Your task to perform on an android device: open app "Facebook" (install if not already installed) and enter user name: "resultants@gmail.com" and password: "earned" Image 0: 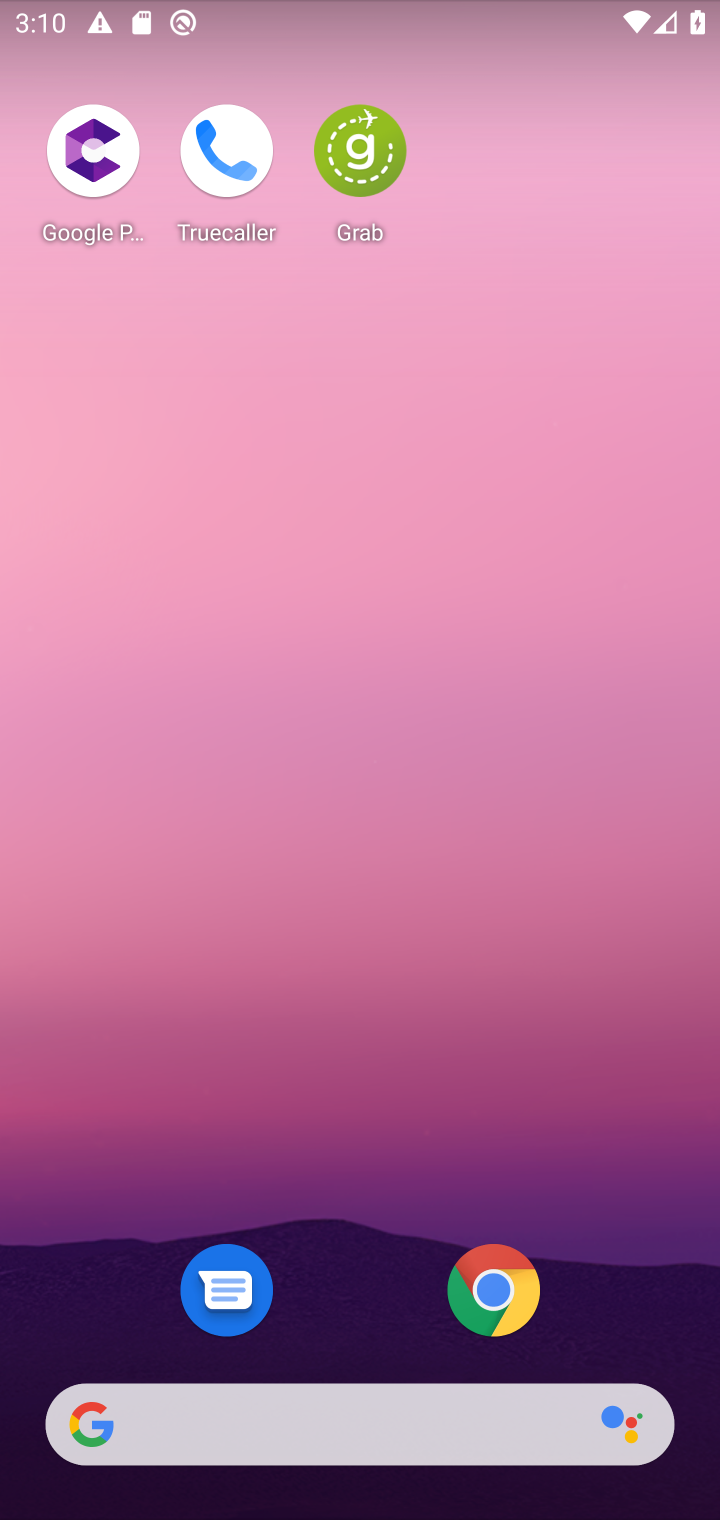
Step 0: drag from (286, 1217) to (197, 135)
Your task to perform on an android device: open app "Facebook" (install if not already installed) and enter user name: "resultants@gmail.com" and password: "earned" Image 1: 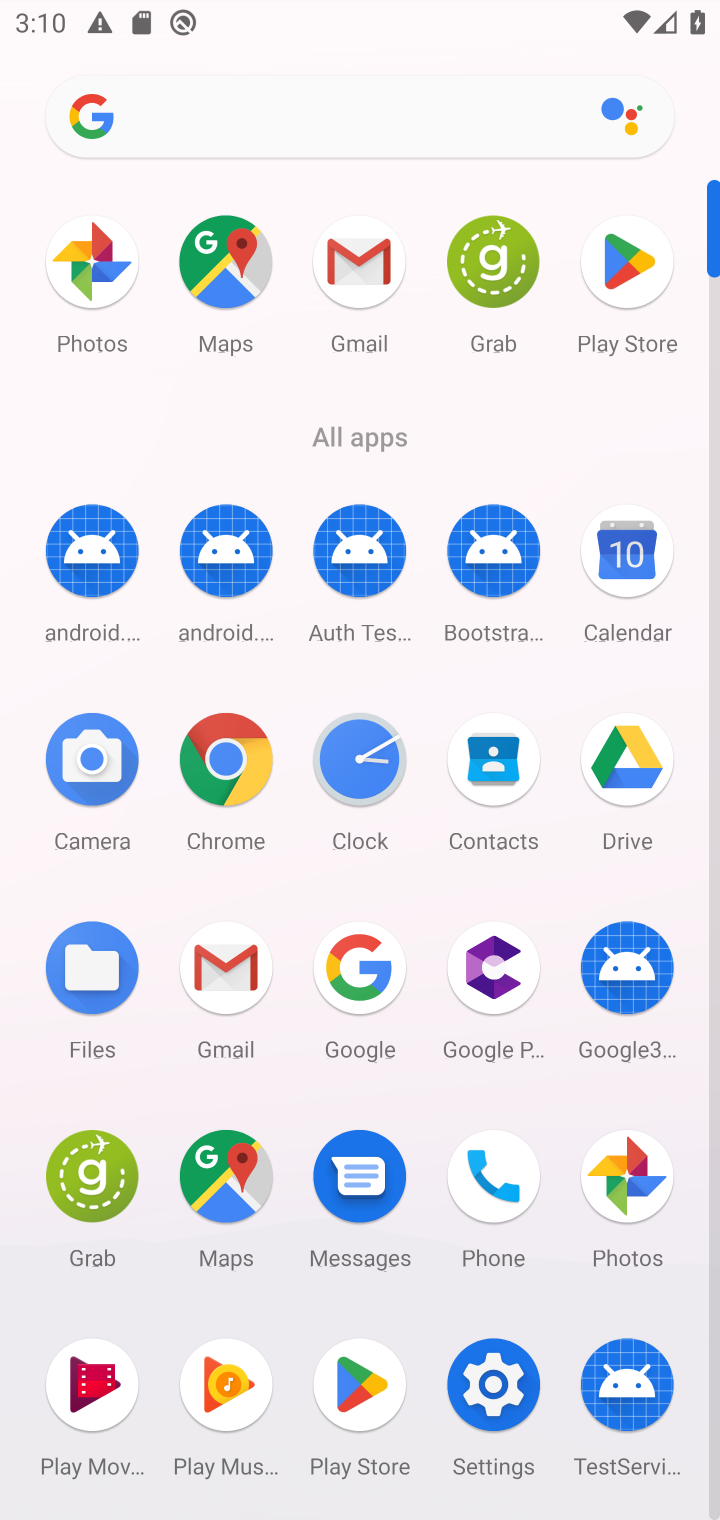
Step 1: drag from (265, 1340) to (194, 227)
Your task to perform on an android device: open app "Facebook" (install if not already installed) and enter user name: "resultants@gmail.com" and password: "earned" Image 2: 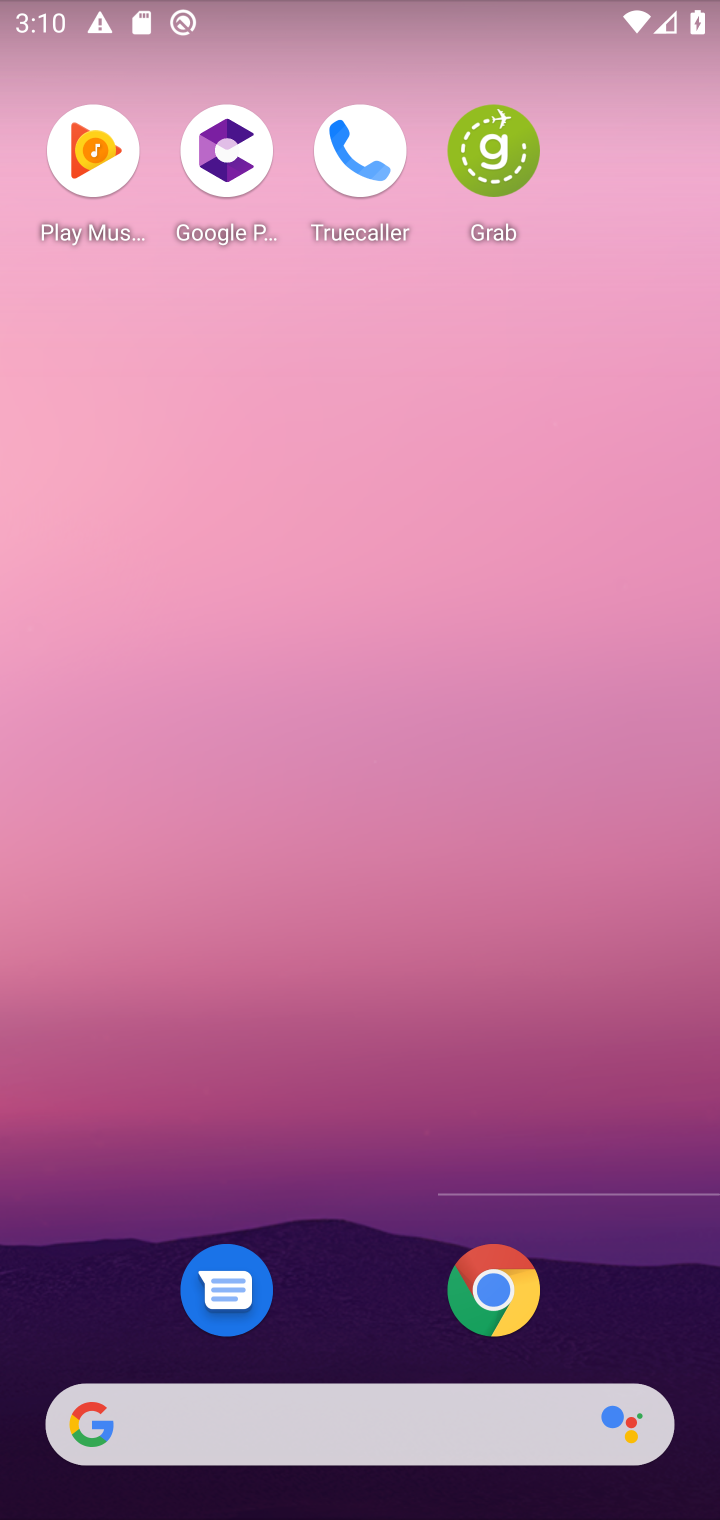
Step 2: drag from (301, 1341) to (274, 0)
Your task to perform on an android device: open app "Facebook" (install if not already installed) and enter user name: "resultants@gmail.com" and password: "earned" Image 3: 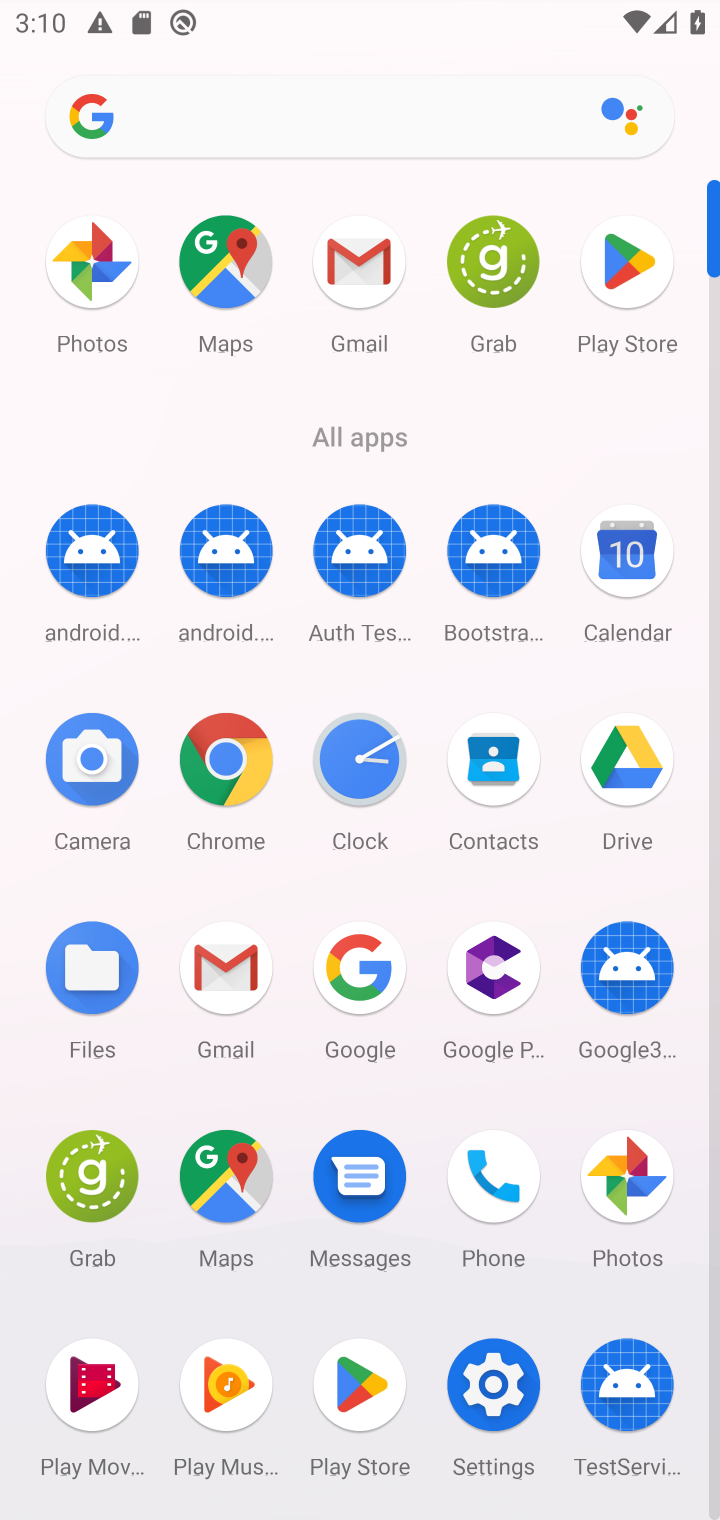
Step 3: drag from (284, 1313) to (292, 95)
Your task to perform on an android device: open app "Facebook" (install if not already installed) and enter user name: "resultants@gmail.com" and password: "earned" Image 4: 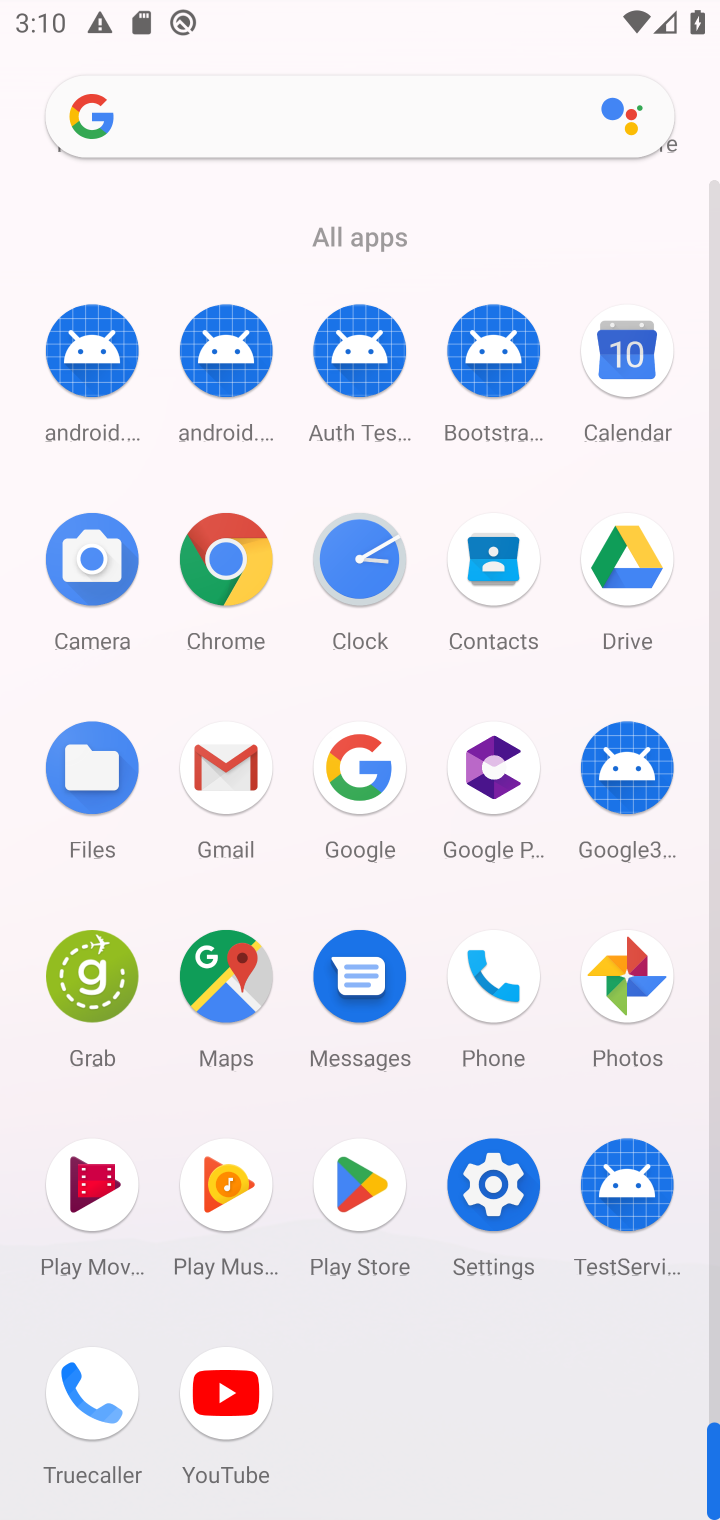
Step 4: click (374, 1180)
Your task to perform on an android device: open app "Facebook" (install if not already installed) and enter user name: "resultants@gmail.com" and password: "earned" Image 5: 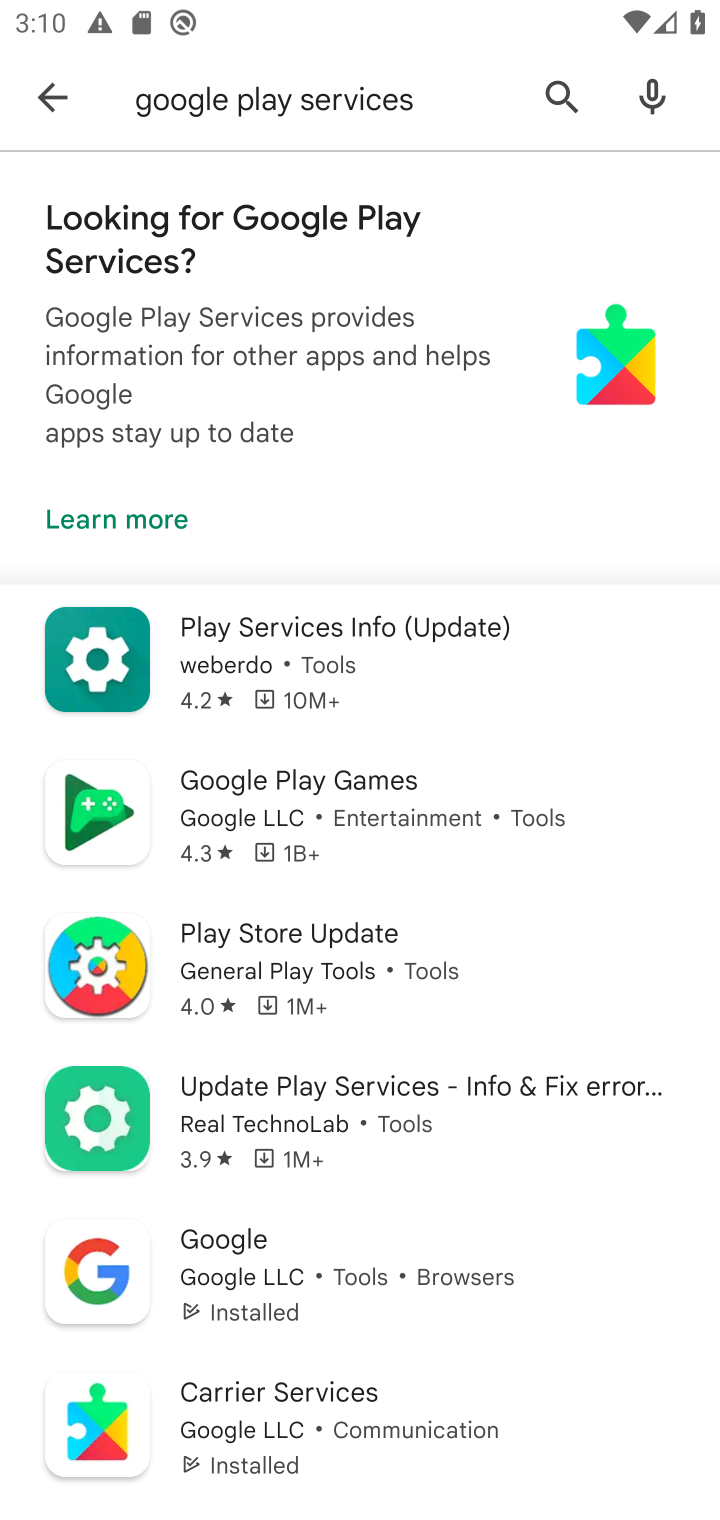
Step 5: click (575, 83)
Your task to perform on an android device: open app "Facebook" (install if not already installed) and enter user name: "resultants@gmail.com" and password: "earned" Image 6: 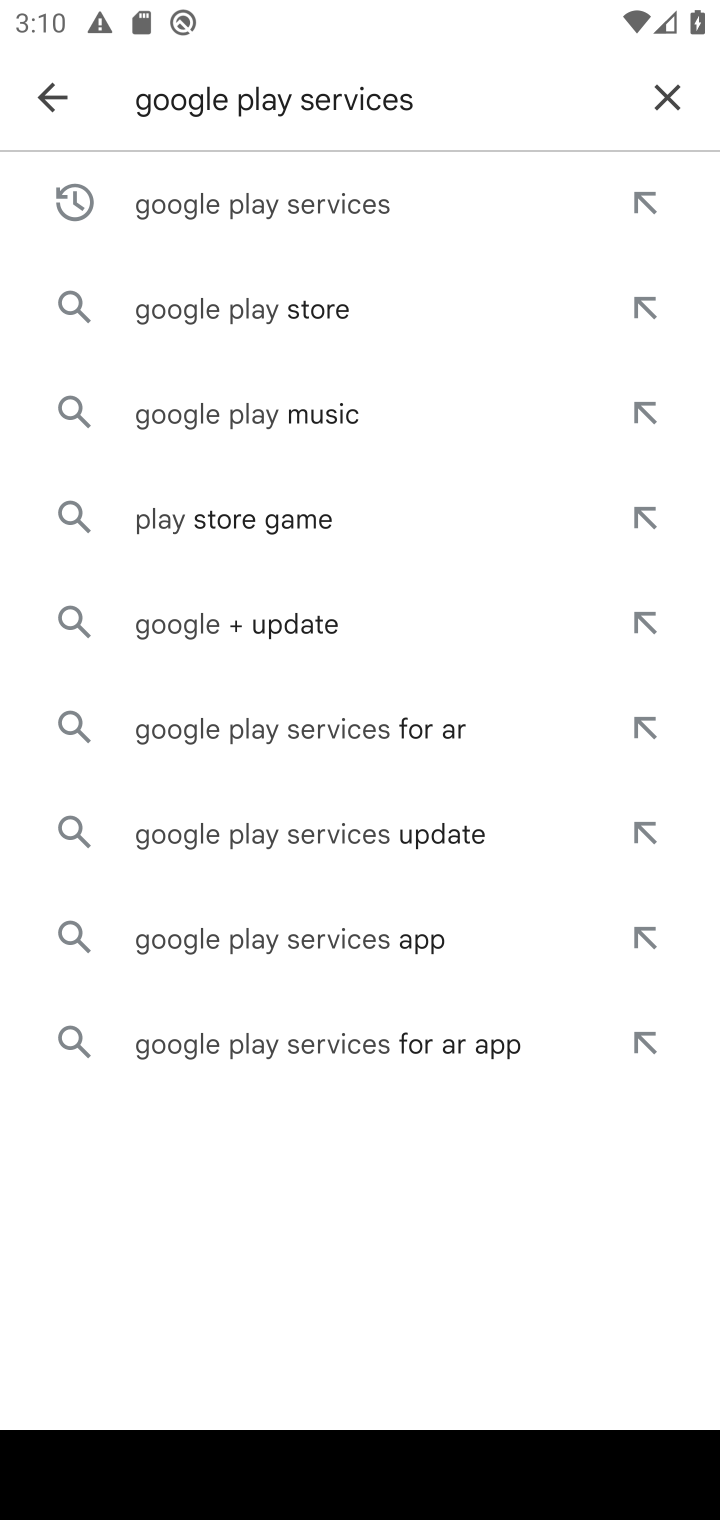
Step 6: click (659, 99)
Your task to perform on an android device: open app "Facebook" (install if not already installed) and enter user name: "resultants@gmail.com" and password: "earned" Image 7: 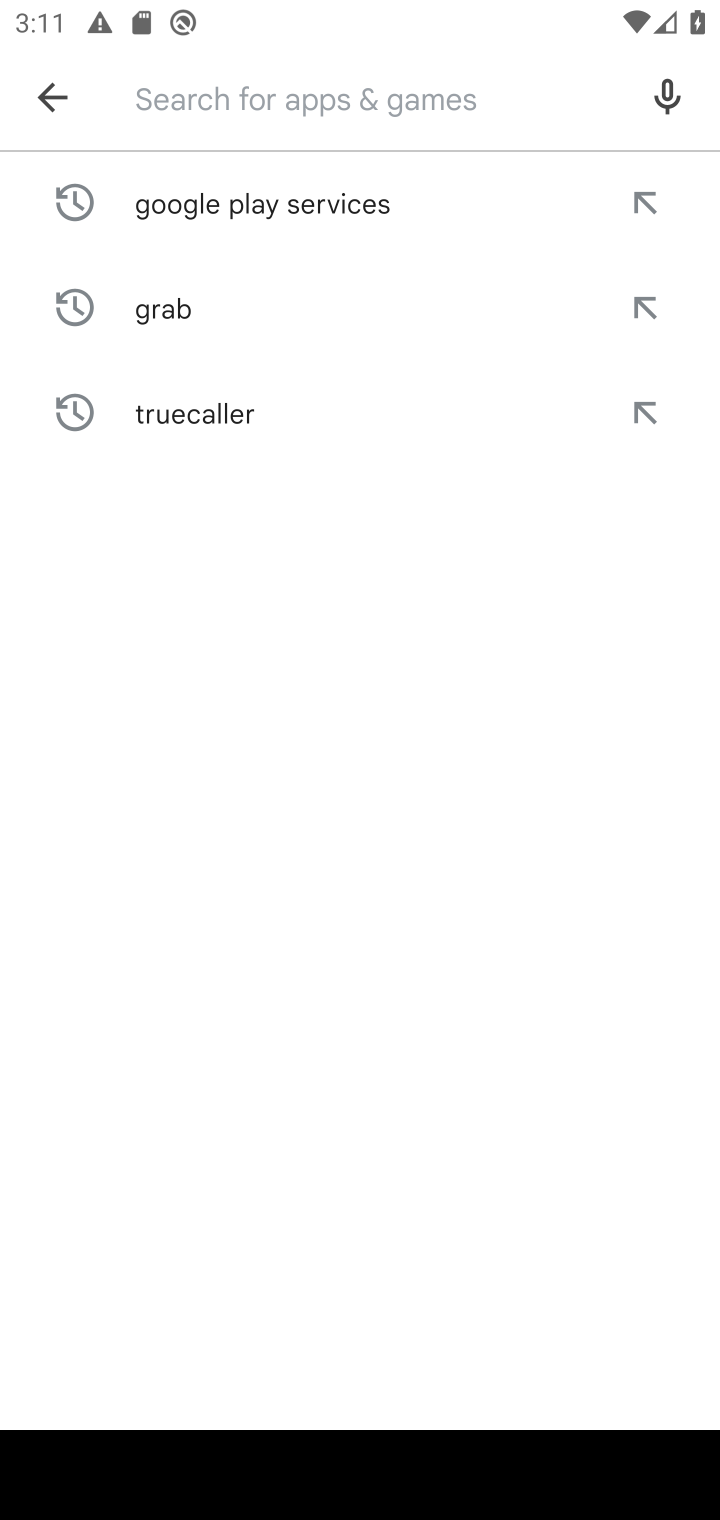
Step 7: click (206, 95)
Your task to perform on an android device: open app "Facebook" (install if not already installed) and enter user name: "resultants@gmail.com" and password: "earned" Image 8: 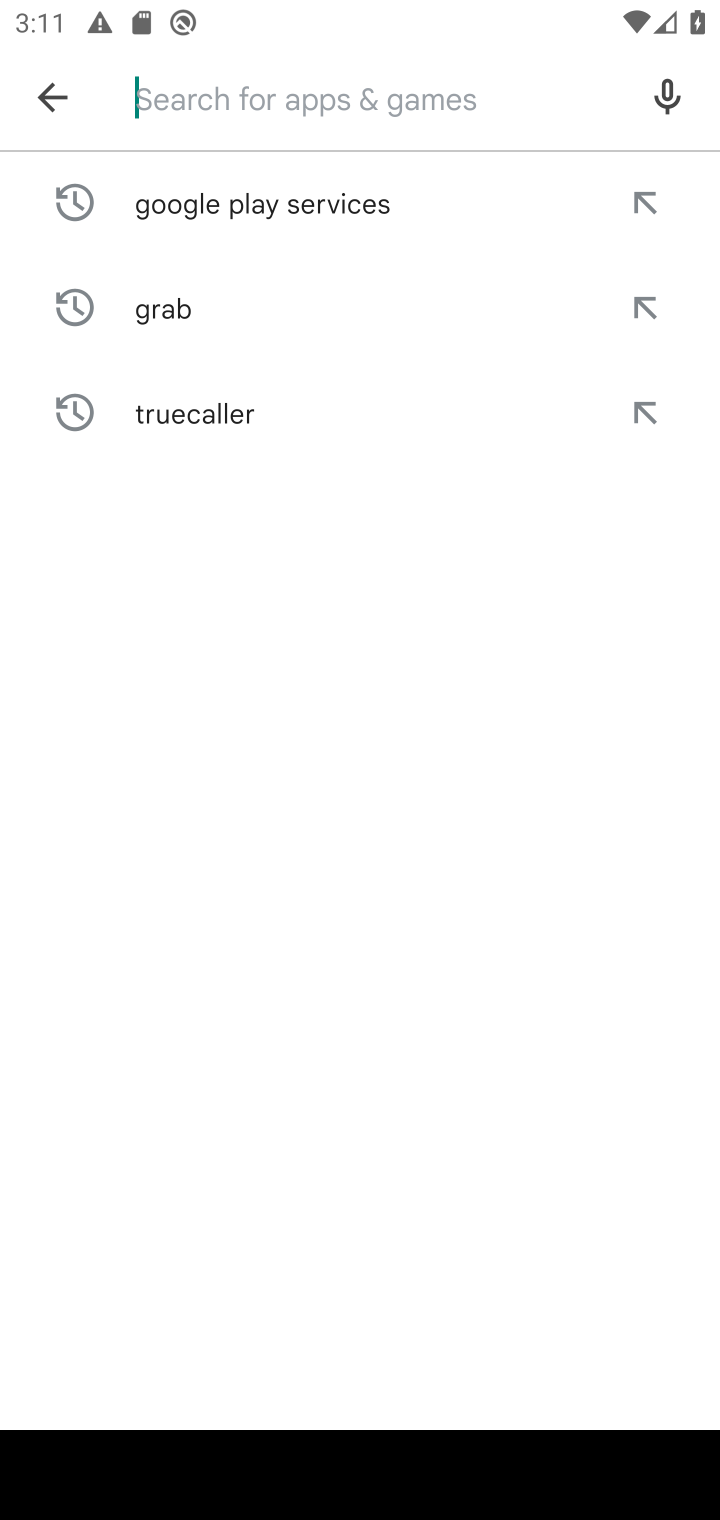
Step 8: type "Facebook"
Your task to perform on an android device: open app "Facebook" (install if not already installed) and enter user name: "resultants@gmail.com" and password: "earned" Image 9: 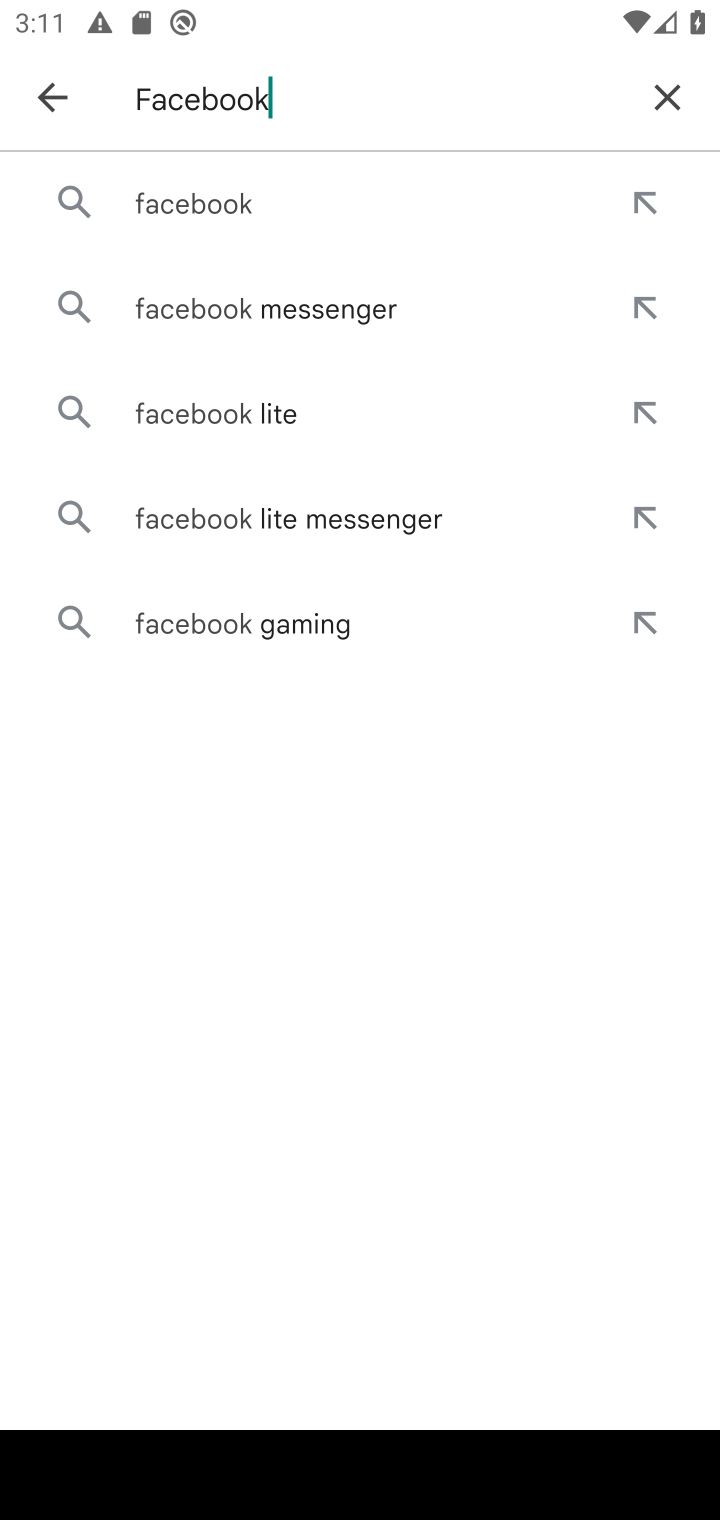
Step 9: click (157, 173)
Your task to perform on an android device: open app "Facebook" (install if not already installed) and enter user name: "resultants@gmail.com" and password: "earned" Image 10: 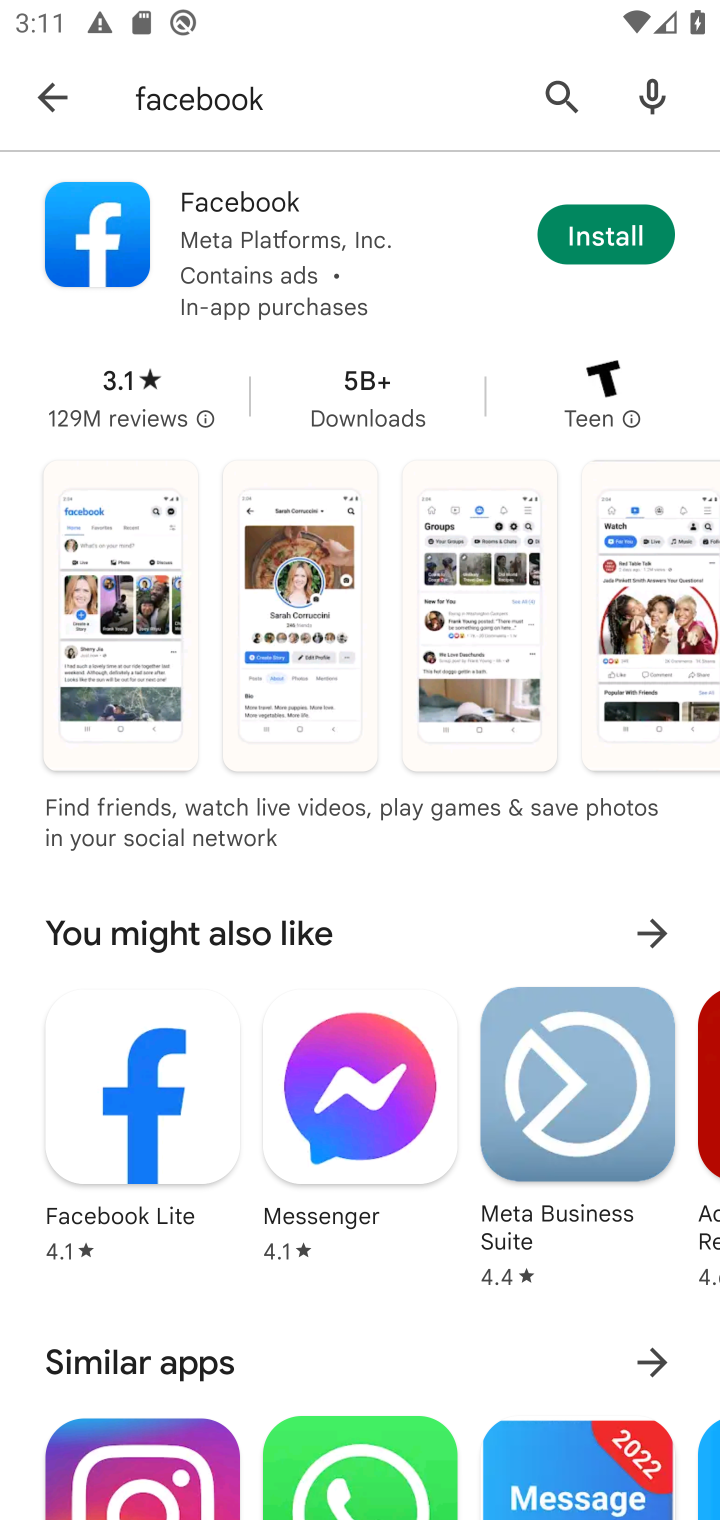
Step 10: click (564, 240)
Your task to perform on an android device: open app "Facebook" (install if not already installed) and enter user name: "resultants@gmail.com" and password: "earned" Image 11: 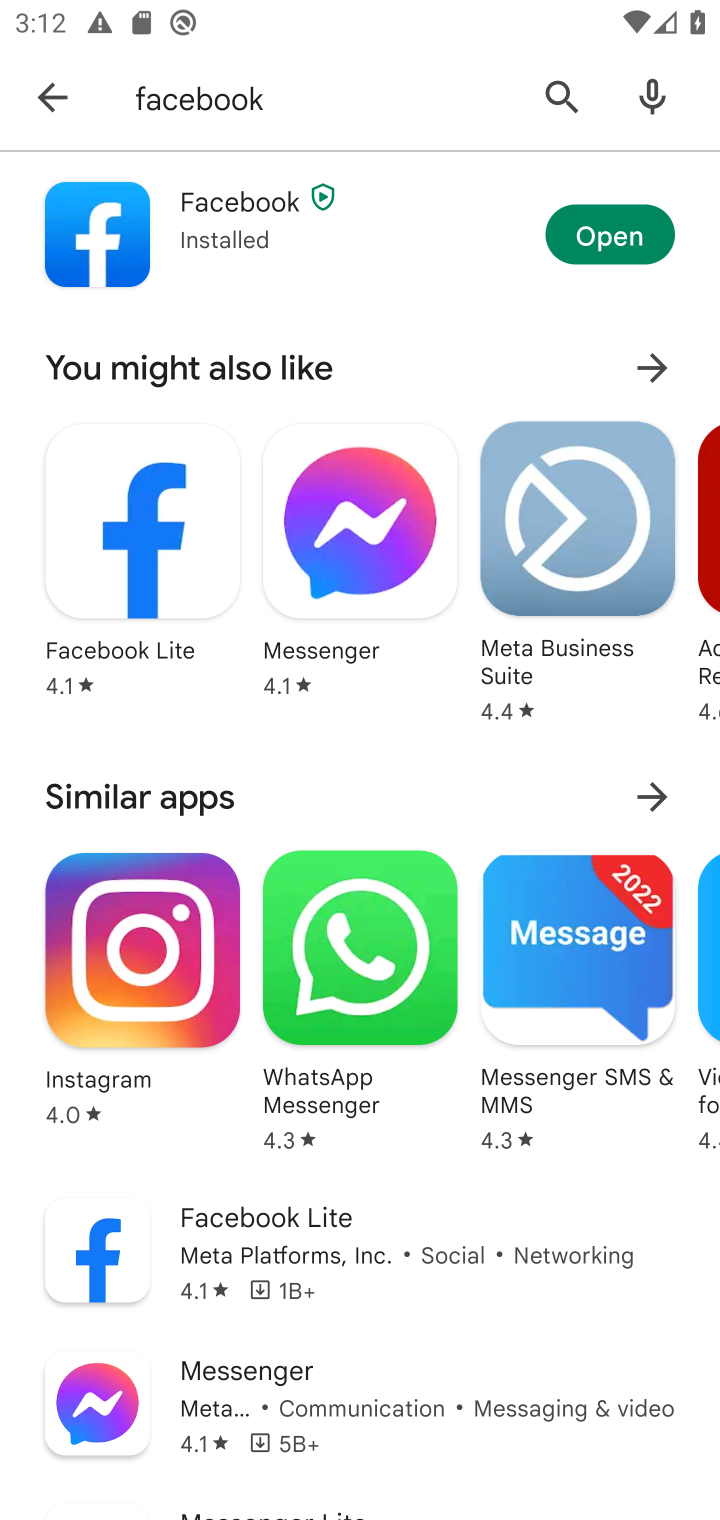
Step 11: click (610, 231)
Your task to perform on an android device: open app "Facebook" (install if not already installed) and enter user name: "resultants@gmail.com" and password: "earned" Image 12: 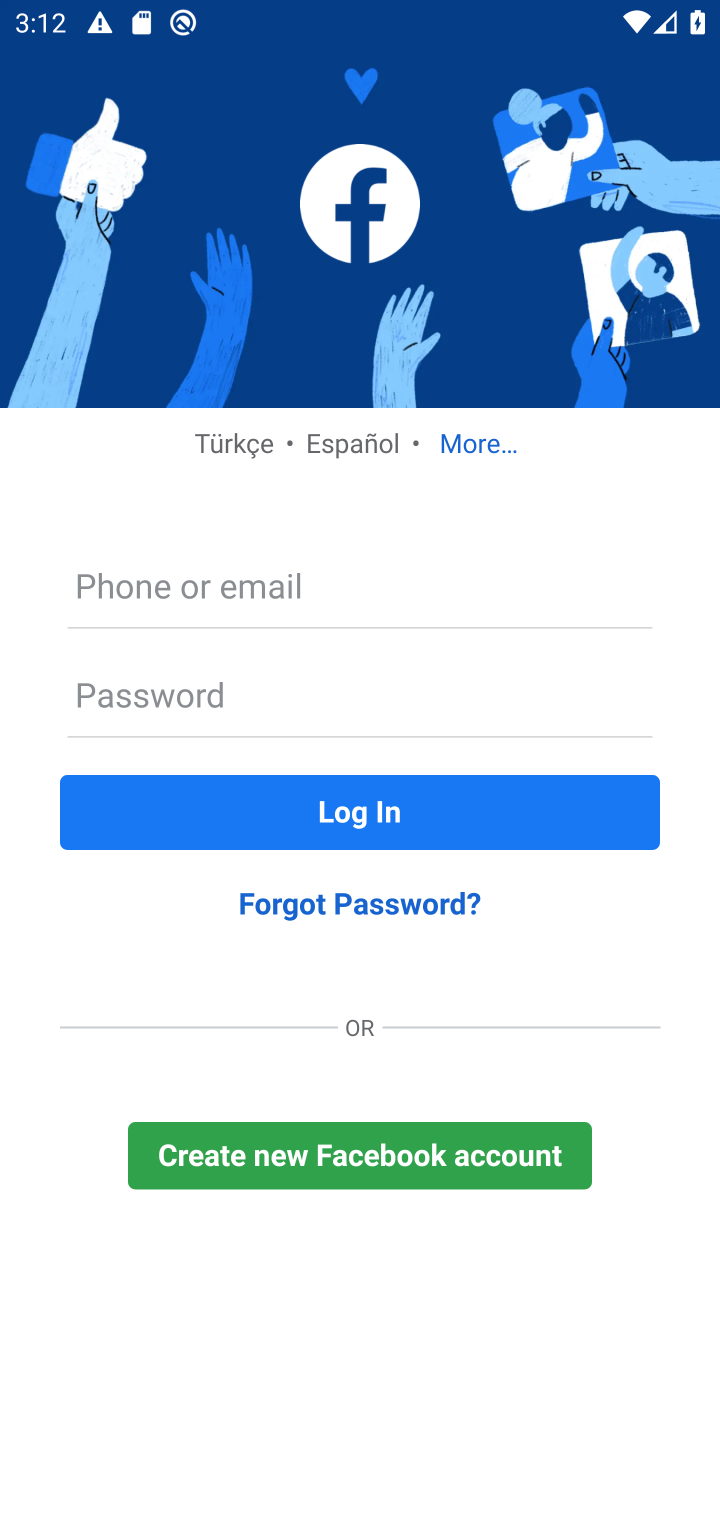
Step 12: click (273, 606)
Your task to perform on an android device: open app "Facebook" (install if not already installed) and enter user name: "resultants@gmail.com" and password: "earned" Image 13: 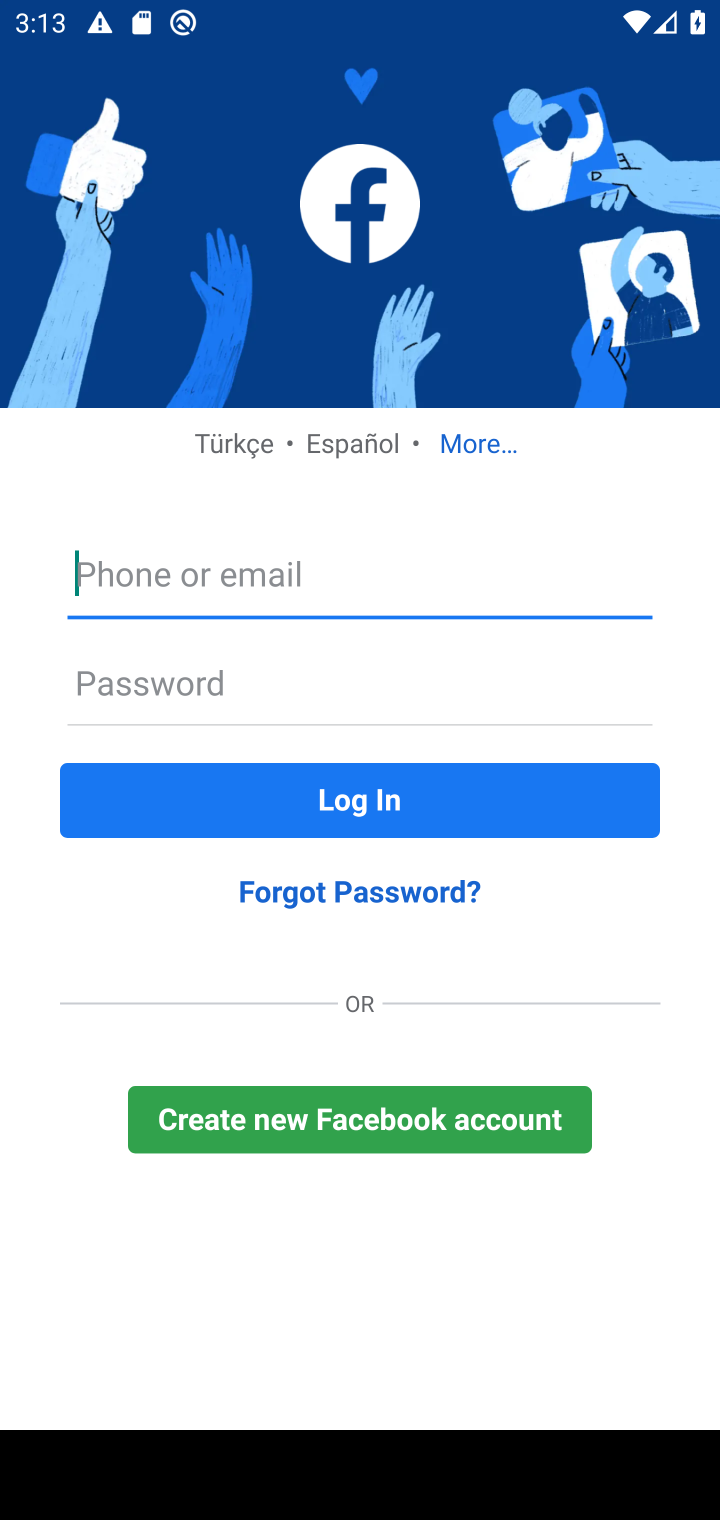
Step 13: type "resultants@gmail.com"
Your task to perform on an android device: open app "Facebook" (install if not already installed) and enter user name: "resultants@gmail.com" and password: "earned" Image 14: 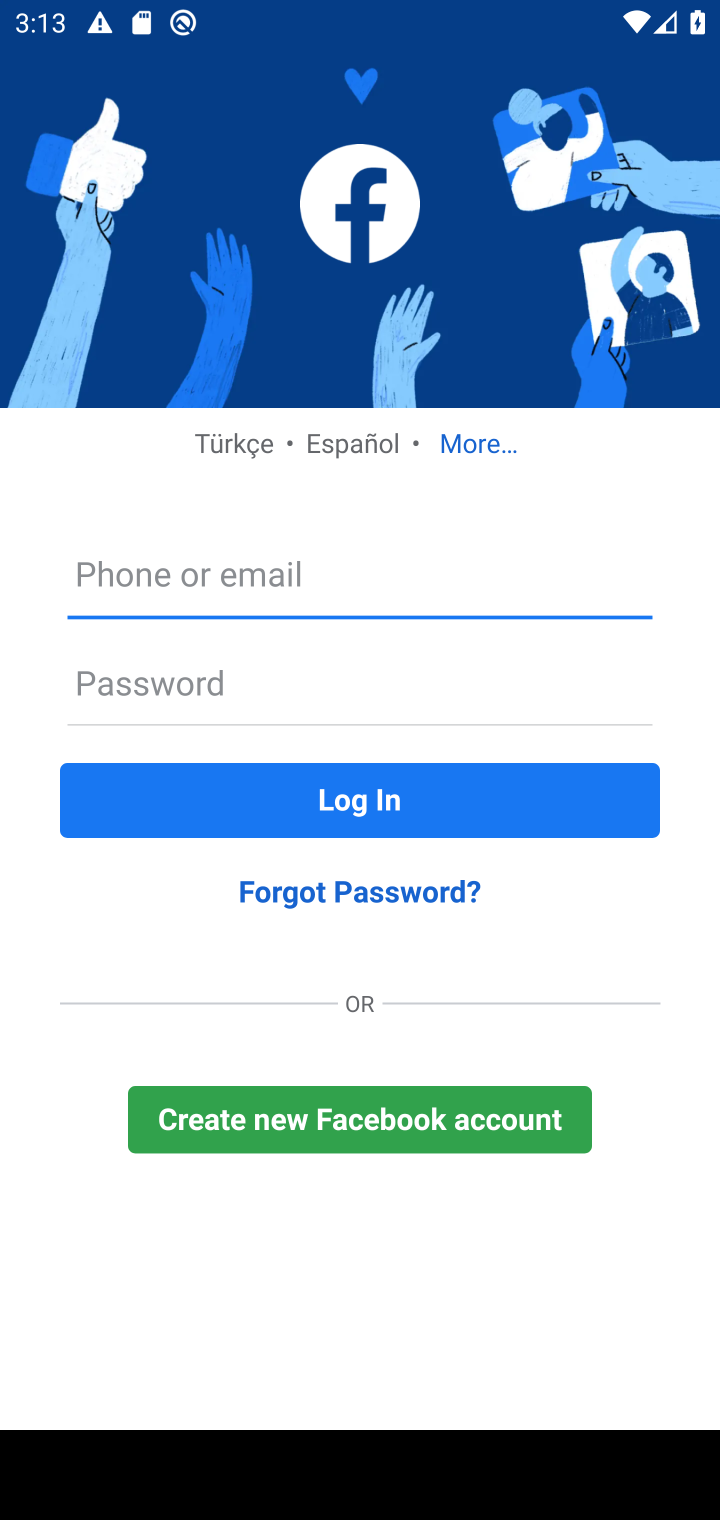
Step 14: click (239, 702)
Your task to perform on an android device: open app "Facebook" (install if not already installed) and enter user name: "resultants@gmail.com" and password: "earned" Image 15: 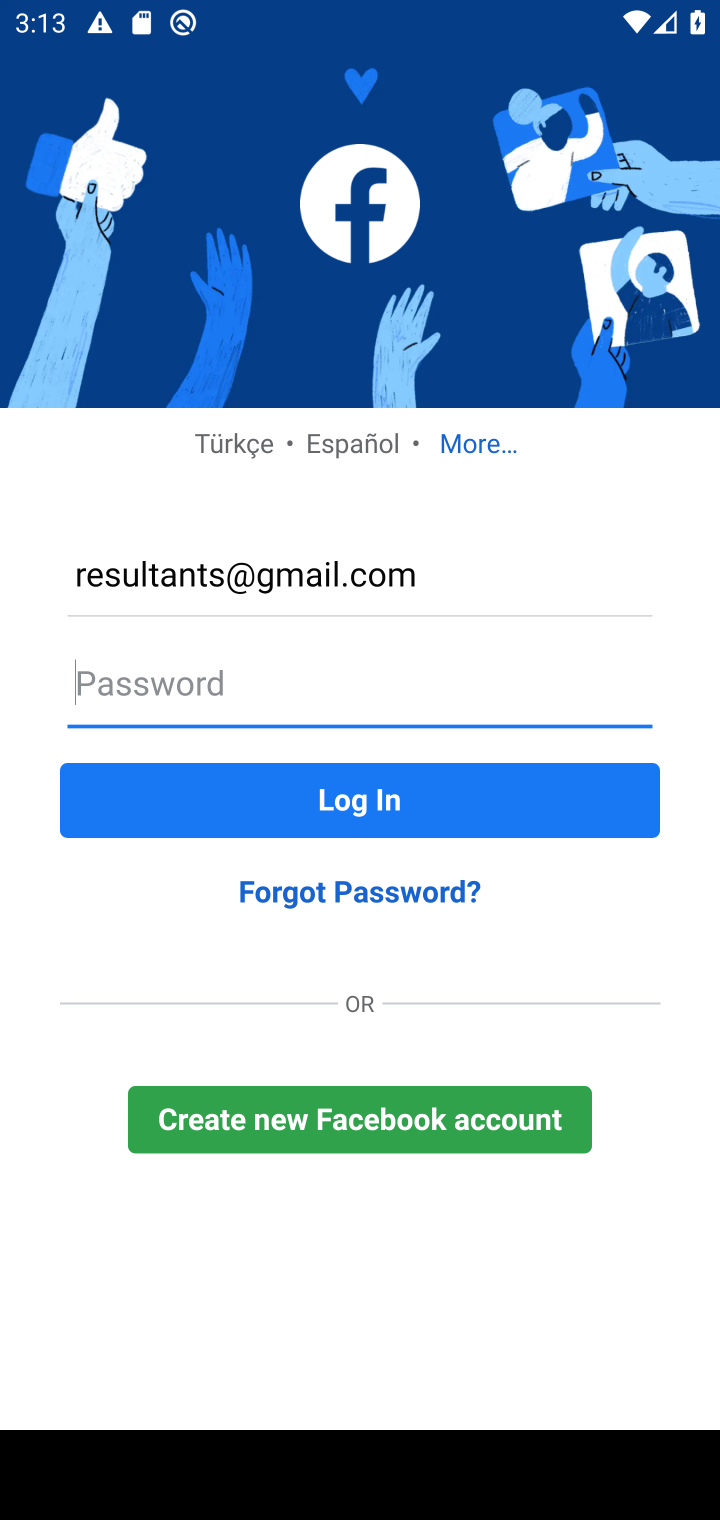
Step 15: type "earned"
Your task to perform on an android device: open app "Facebook" (install if not already installed) and enter user name: "resultants@gmail.com" and password: "earned" Image 16: 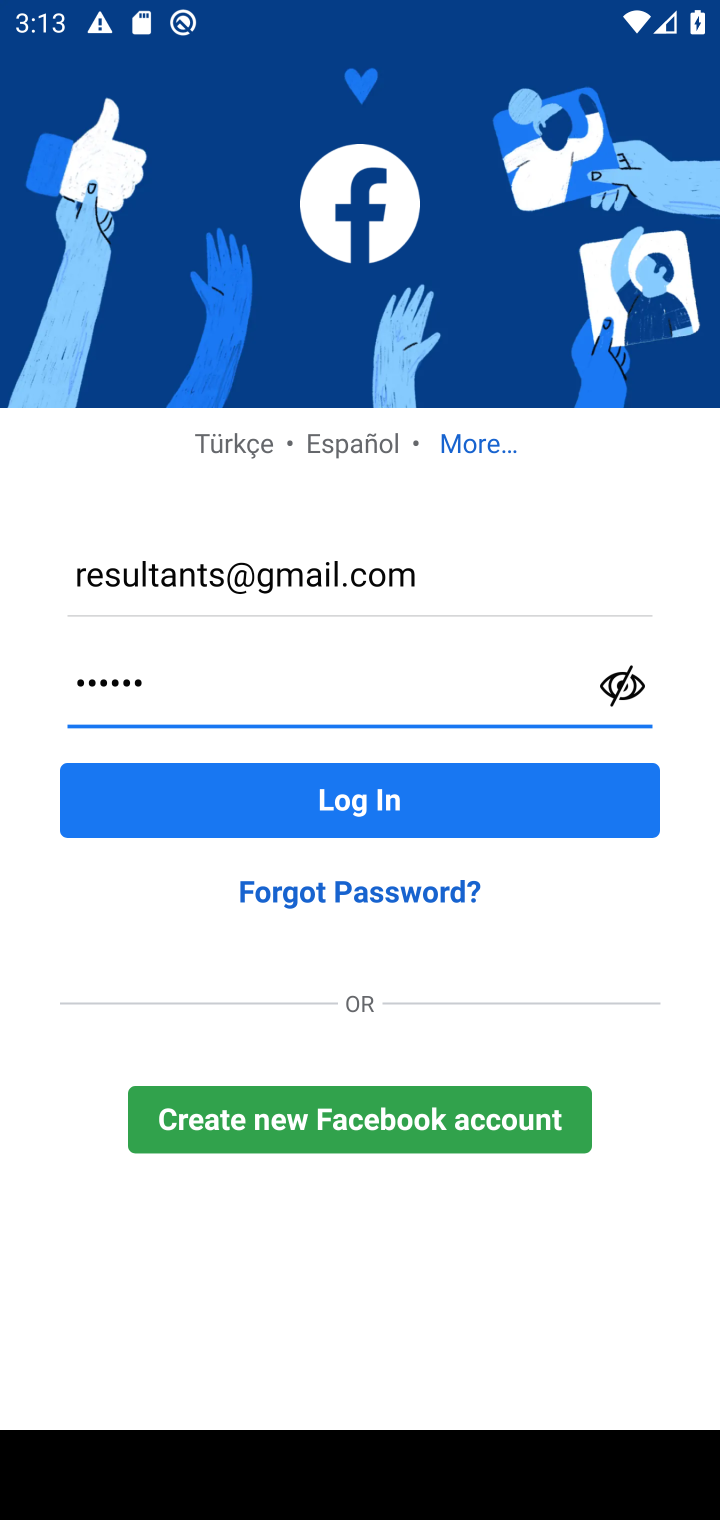
Step 16: task complete